Your task to perform on an android device: turn on bluetooth scan Image 0: 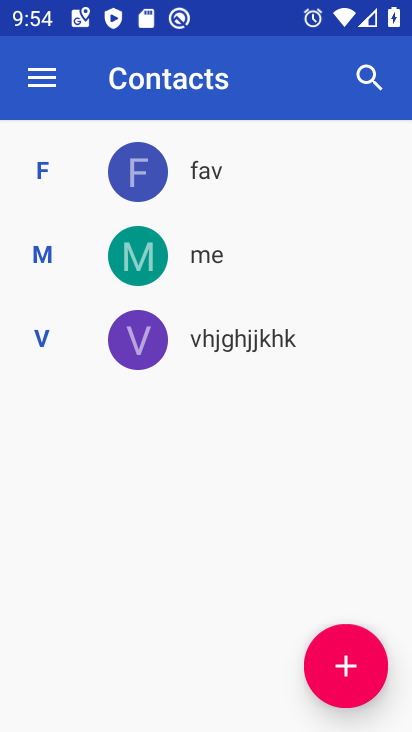
Step 0: press home button
Your task to perform on an android device: turn on bluetooth scan Image 1: 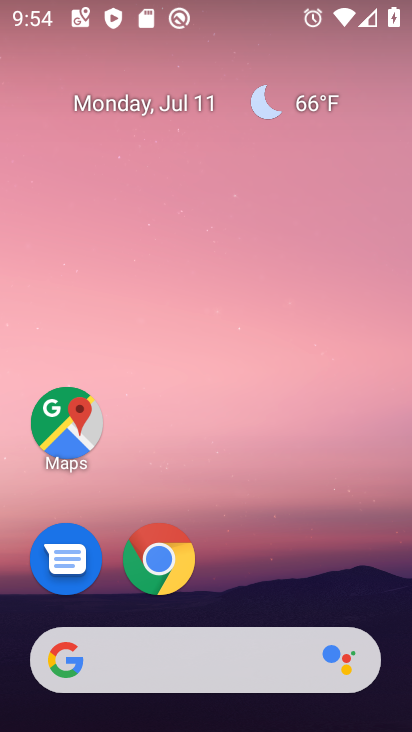
Step 1: drag from (371, 588) to (383, 164)
Your task to perform on an android device: turn on bluetooth scan Image 2: 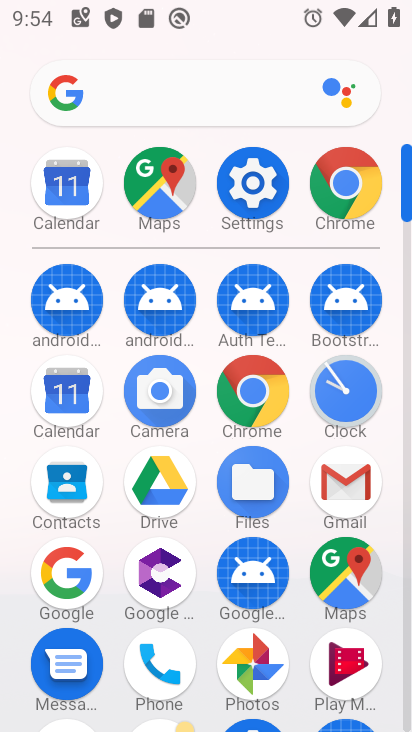
Step 2: click (266, 204)
Your task to perform on an android device: turn on bluetooth scan Image 3: 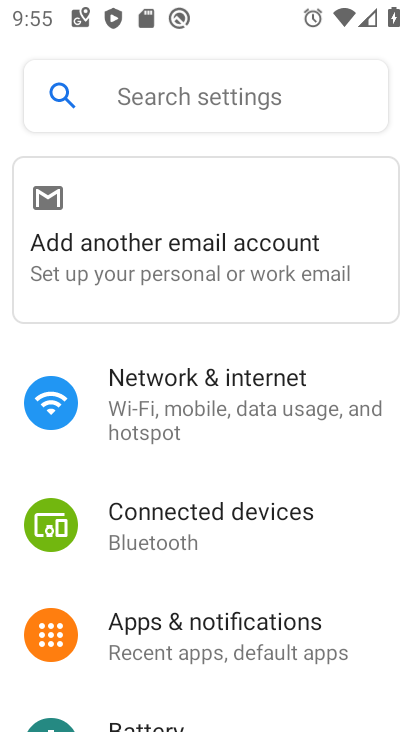
Step 3: drag from (358, 521) to (363, 438)
Your task to perform on an android device: turn on bluetooth scan Image 4: 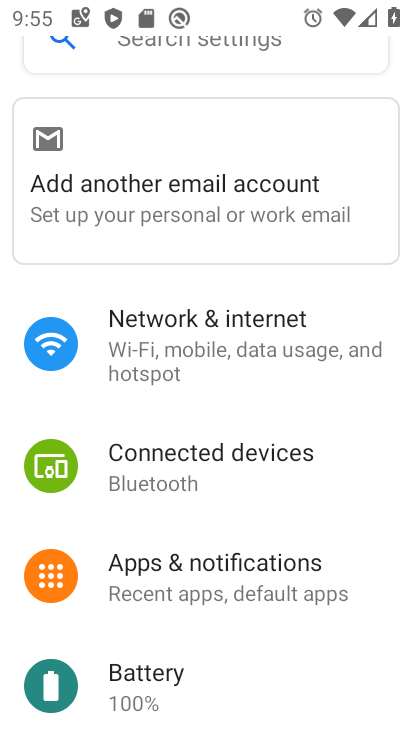
Step 4: drag from (362, 546) to (360, 447)
Your task to perform on an android device: turn on bluetooth scan Image 5: 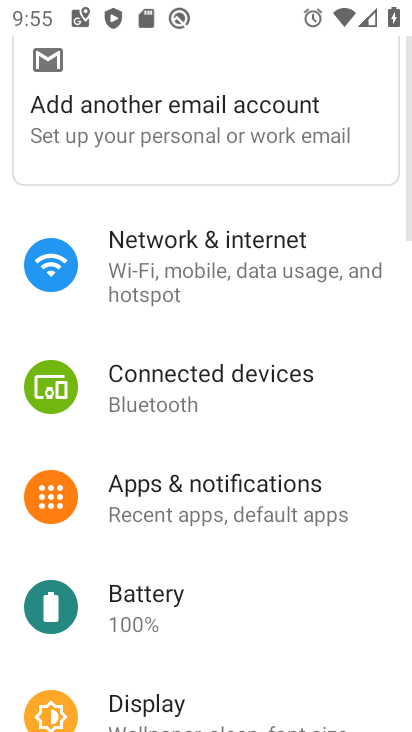
Step 5: drag from (361, 547) to (358, 448)
Your task to perform on an android device: turn on bluetooth scan Image 6: 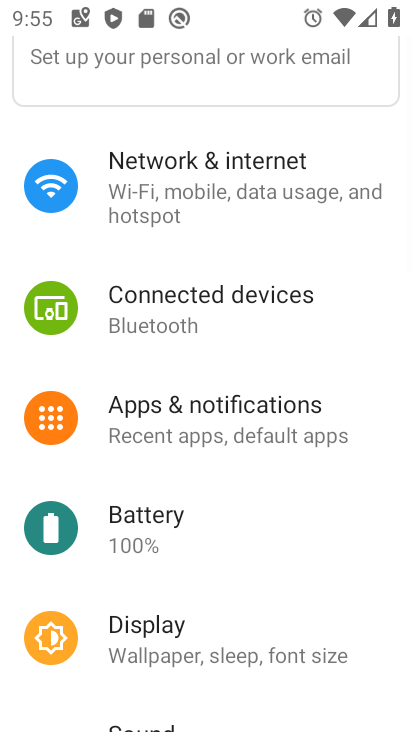
Step 6: drag from (354, 558) to (349, 443)
Your task to perform on an android device: turn on bluetooth scan Image 7: 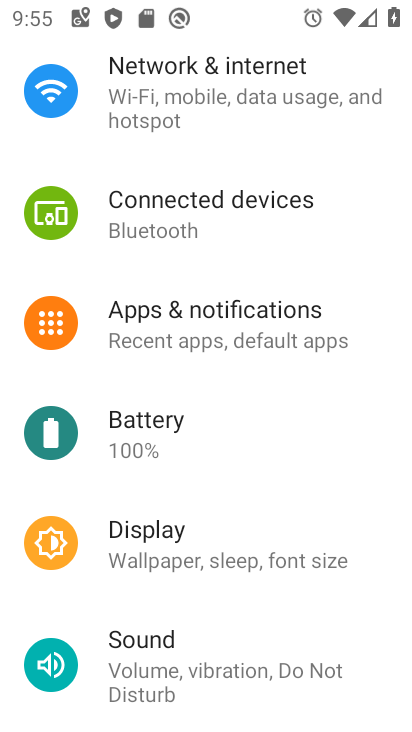
Step 7: drag from (354, 594) to (361, 452)
Your task to perform on an android device: turn on bluetooth scan Image 8: 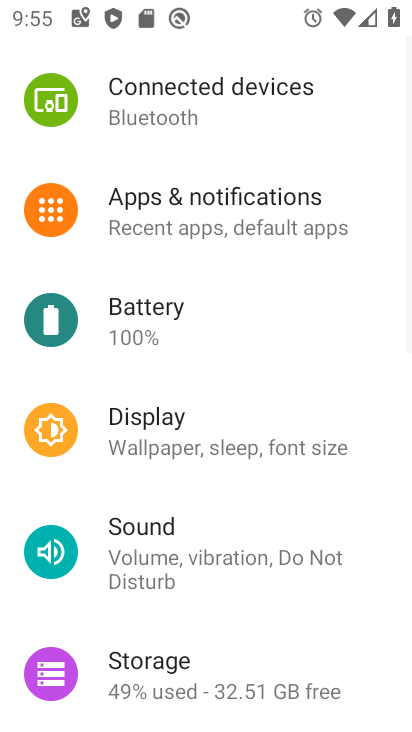
Step 8: drag from (341, 591) to (348, 451)
Your task to perform on an android device: turn on bluetooth scan Image 9: 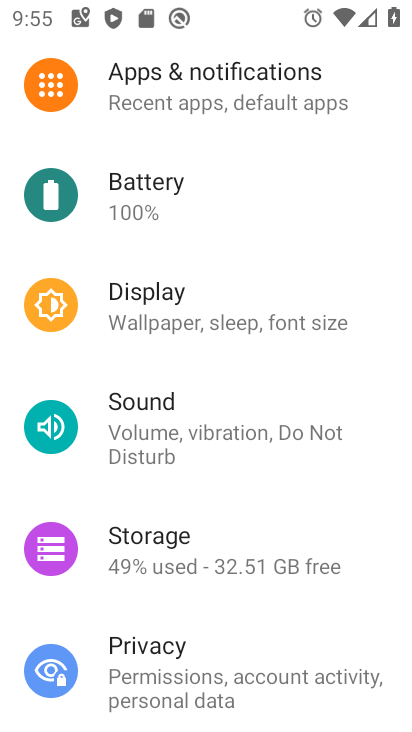
Step 9: drag from (344, 584) to (345, 448)
Your task to perform on an android device: turn on bluetooth scan Image 10: 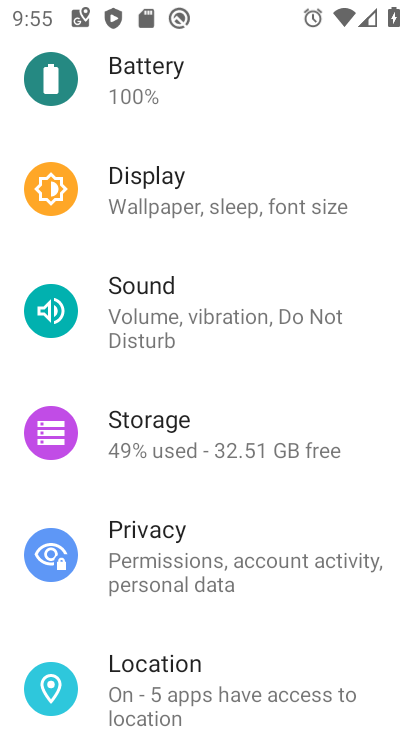
Step 10: drag from (328, 609) to (323, 483)
Your task to perform on an android device: turn on bluetooth scan Image 11: 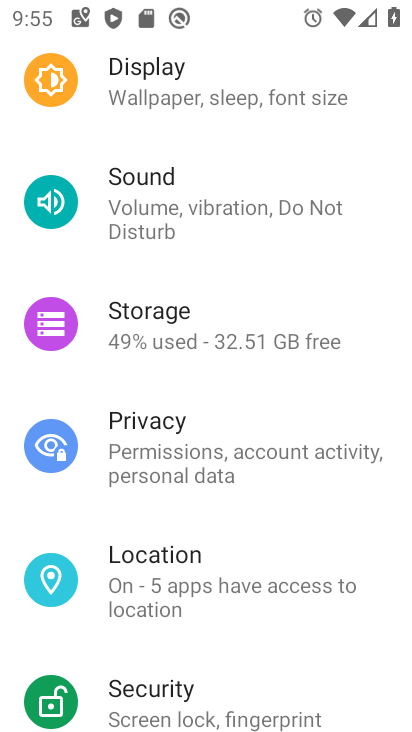
Step 11: click (247, 577)
Your task to perform on an android device: turn on bluetooth scan Image 12: 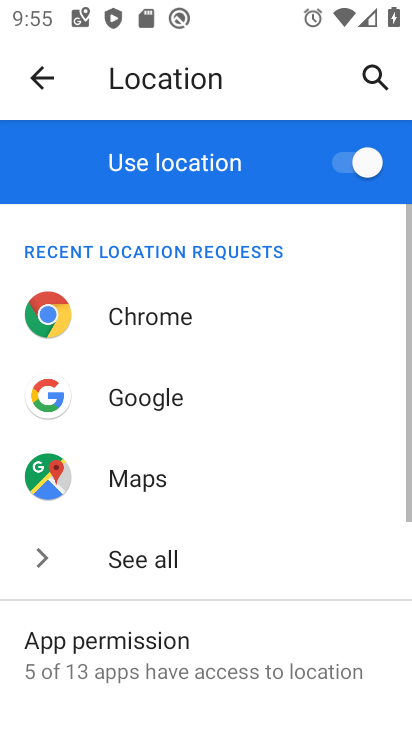
Step 12: drag from (278, 606) to (291, 428)
Your task to perform on an android device: turn on bluetooth scan Image 13: 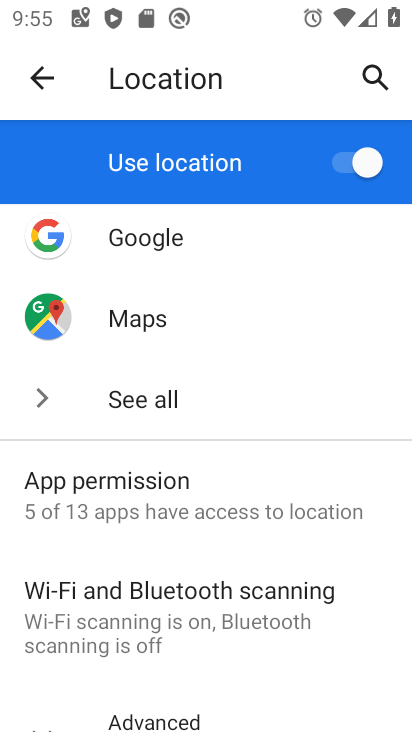
Step 13: click (300, 616)
Your task to perform on an android device: turn on bluetooth scan Image 14: 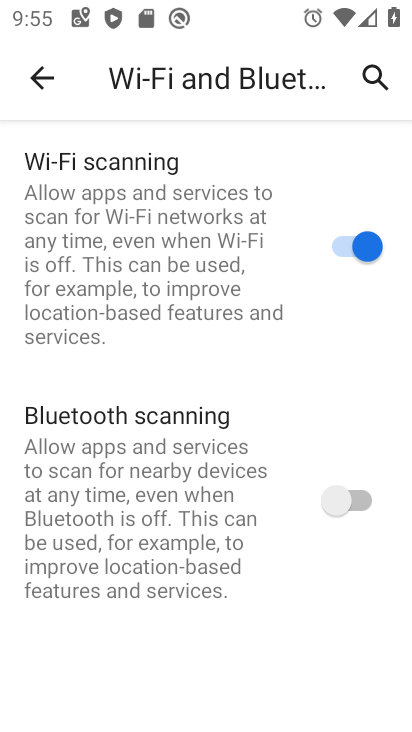
Step 14: click (348, 498)
Your task to perform on an android device: turn on bluetooth scan Image 15: 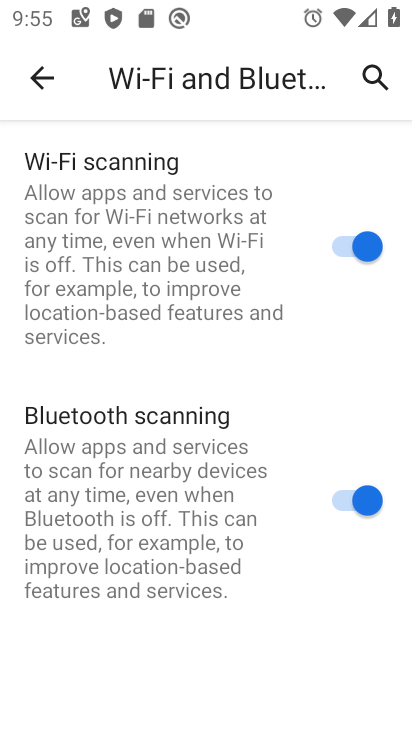
Step 15: task complete